Your task to perform on an android device: turn on data saver in the chrome app Image 0: 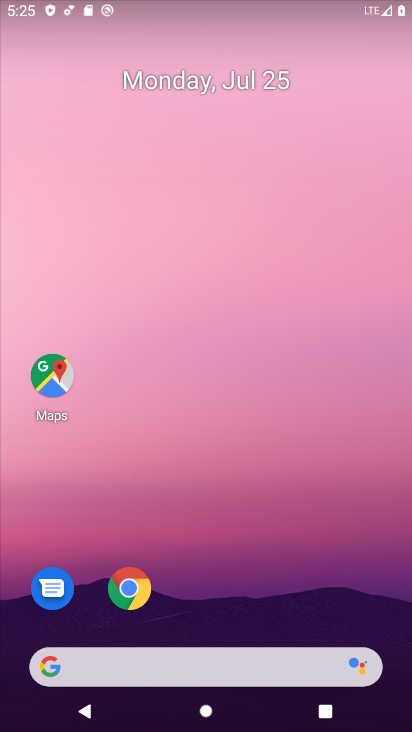
Step 0: click (128, 588)
Your task to perform on an android device: turn on data saver in the chrome app Image 1: 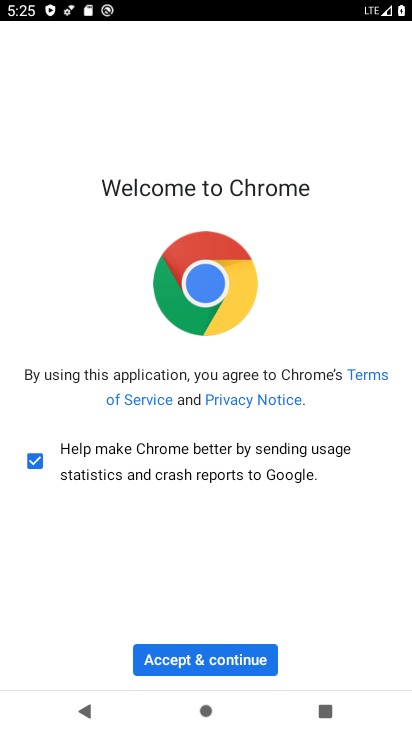
Step 1: click (174, 664)
Your task to perform on an android device: turn on data saver in the chrome app Image 2: 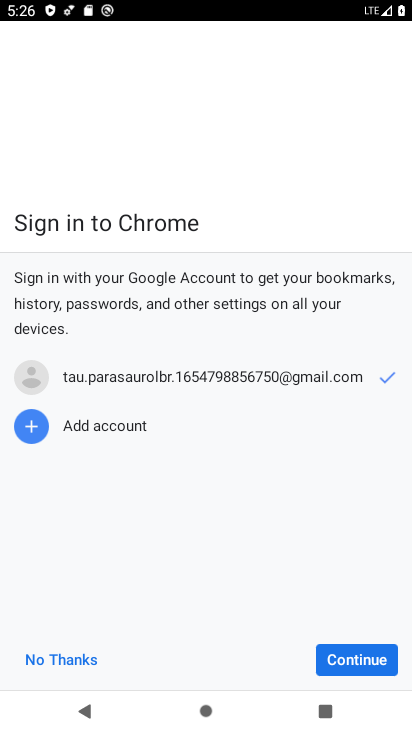
Step 2: click (347, 660)
Your task to perform on an android device: turn on data saver in the chrome app Image 3: 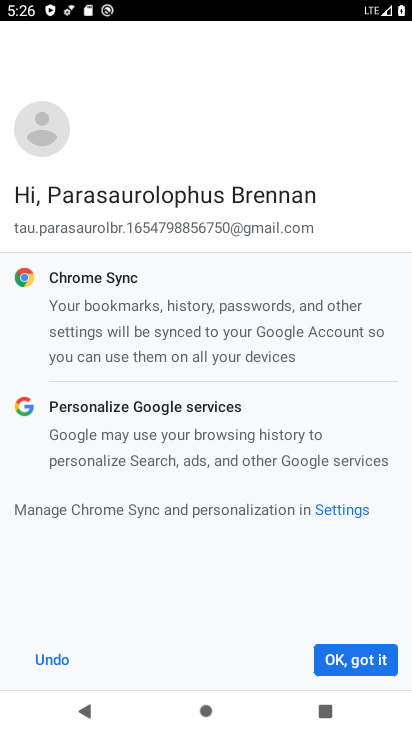
Step 3: click (351, 659)
Your task to perform on an android device: turn on data saver in the chrome app Image 4: 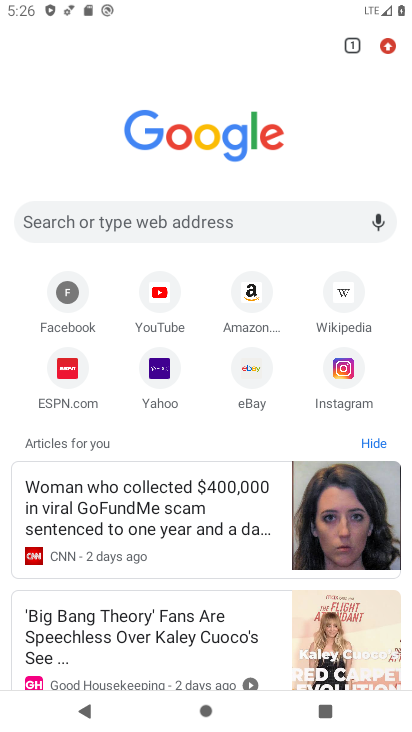
Step 4: click (386, 48)
Your task to perform on an android device: turn on data saver in the chrome app Image 5: 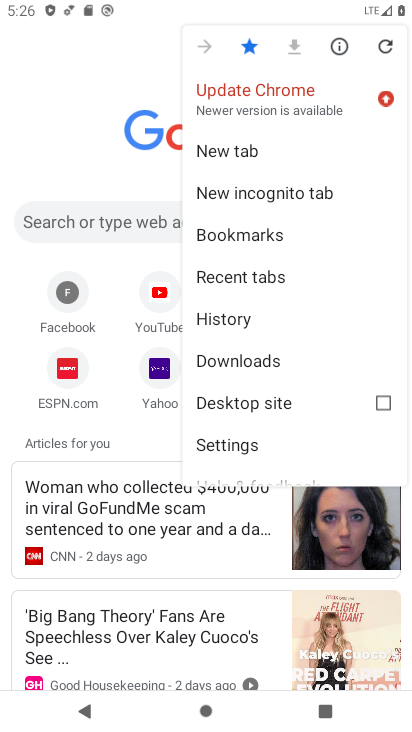
Step 5: click (225, 443)
Your task to perform on an android device: turn on data saver in the chrome app Image 6: 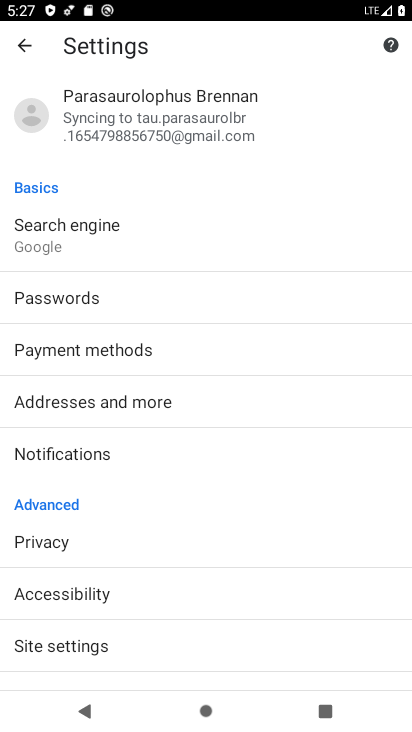
Step 6: drag from (51, 532) to (111, 420)
Your task to perform on an android device: turn on data saver in the chrome app Image 7: 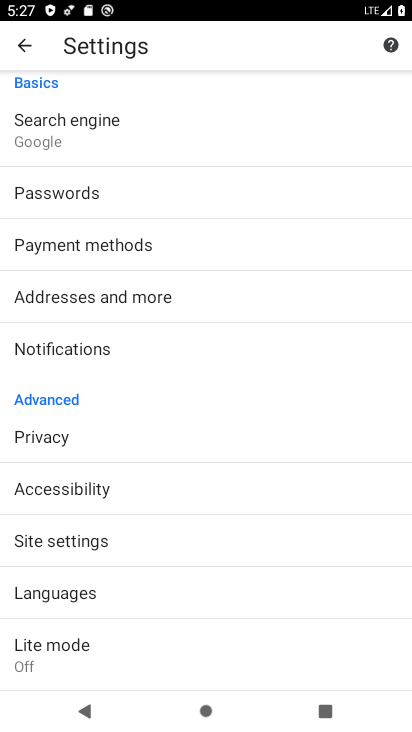
Step 7: click (66, 649)
Your task to perform on an android device: turn on data saver in the chrome app Image 8: 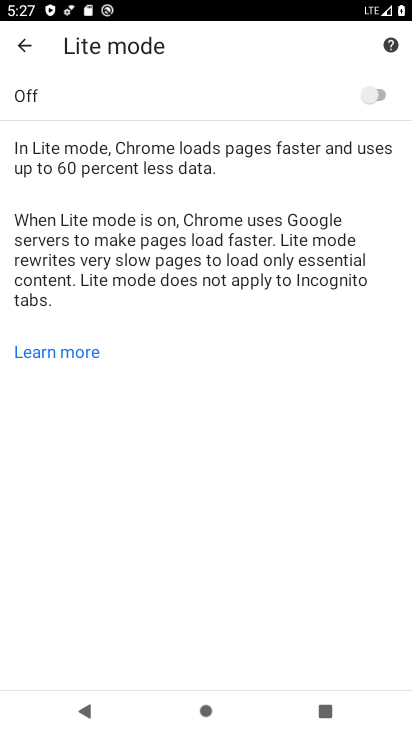
Step 8: click (376, 95)
Your task to perform on an android device: turn on data saver in the chrome app Image 9: 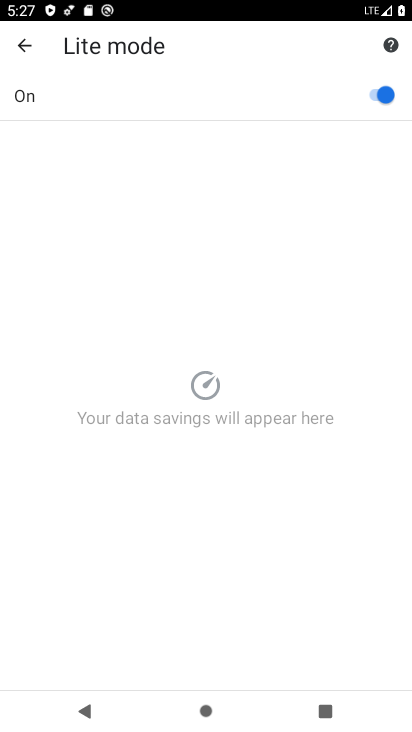
Step 9: task complete